Your task to perform on an android device: turn off improve location accuracy Image 0: 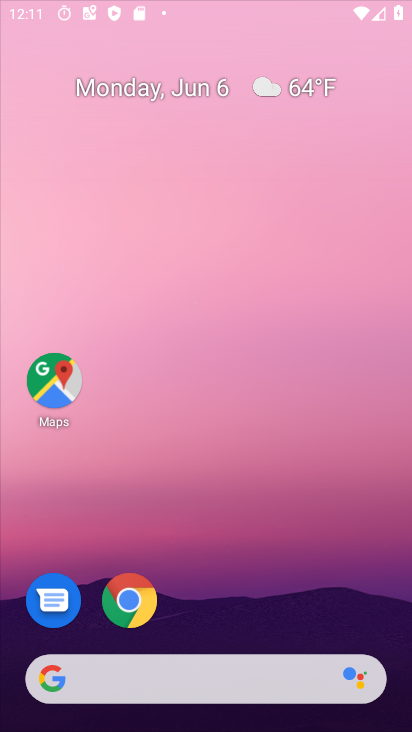
Step 0: click (30, 62)
Your task to perform on an android device: turn off improve location accuracy Image 1: 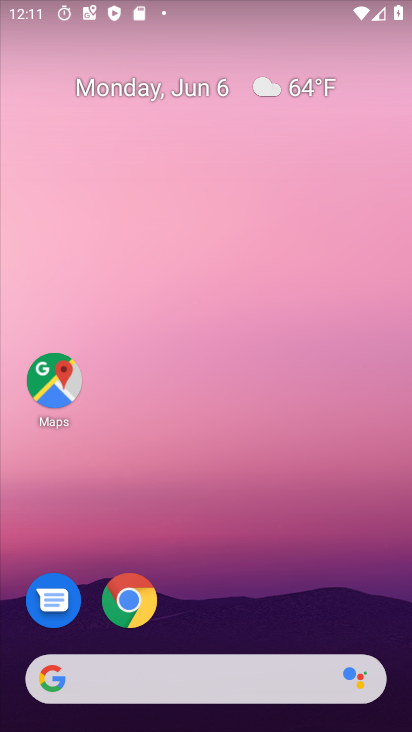
Step 1: drag from (294, 708) to (206, 114)
Your task to perform on an android device: turn off improve location accuracy Image 2: 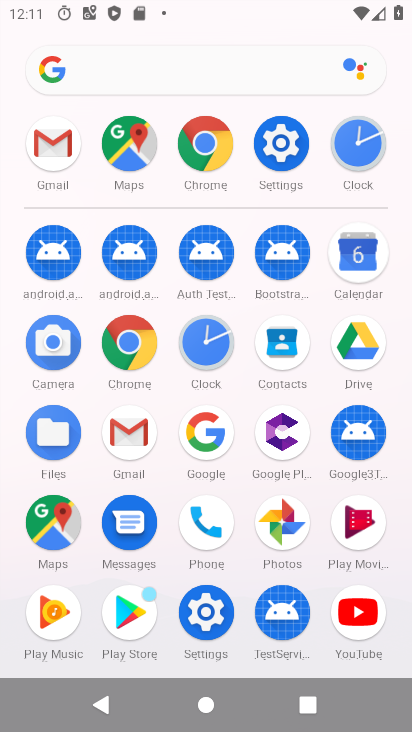
Step 2: drag from (252, 650) to (143, 216)
Your task to perform on an android device: turn off improve location accuracy Image 3: 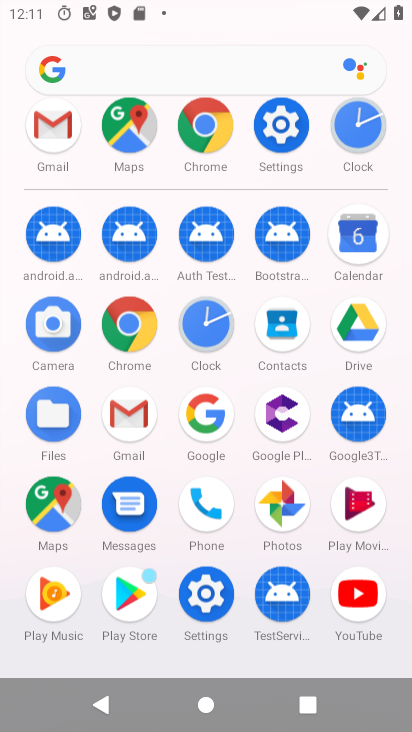
Step 3: click (278, 142)
Your task to perform on an android device: turn off improve location accuracy Image 4: 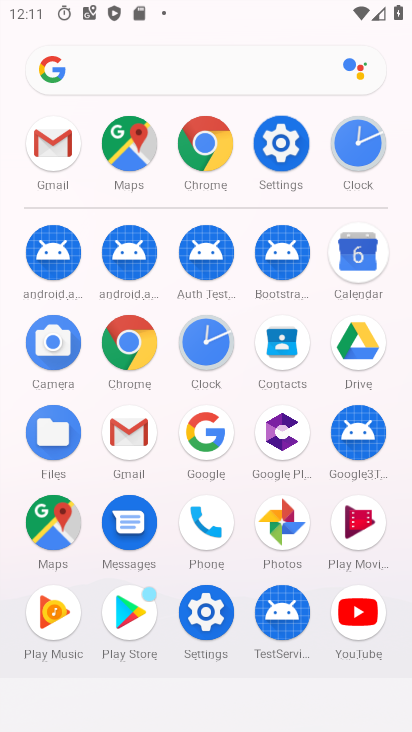
Step 4: click (278, 141)
Your task to perform on an android device: turn off improve location accuracy Image 5: 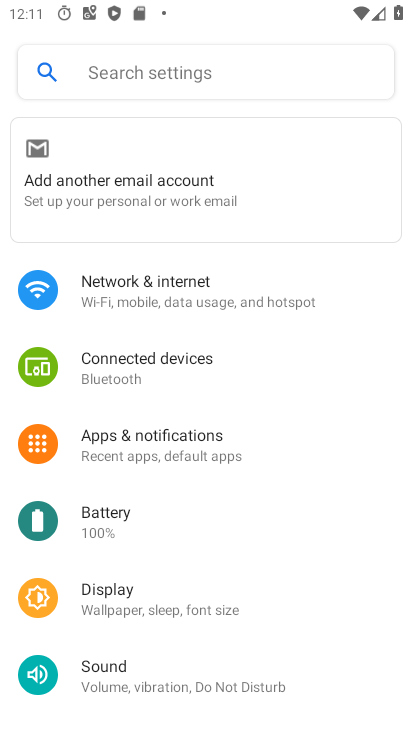
Step 5: drag from (141, 543) to (105, 203)
Your task to perform on an android device: turn off improve location accuracy Image 6: 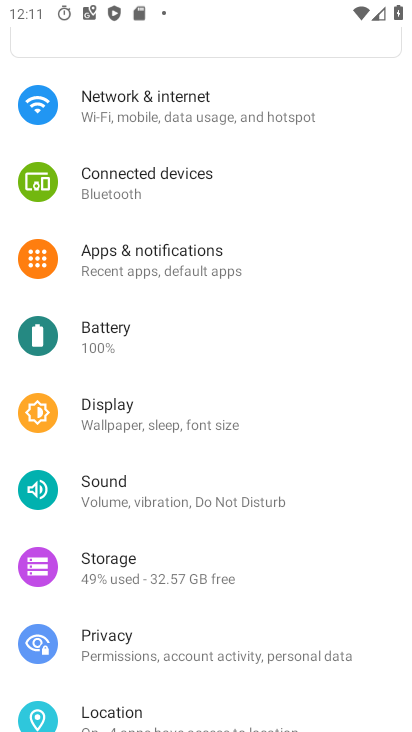
Step 6: drag from (217, 511) to (201, 255)
Your task to perform on an android device: turn off improve location accuracy Image 7: 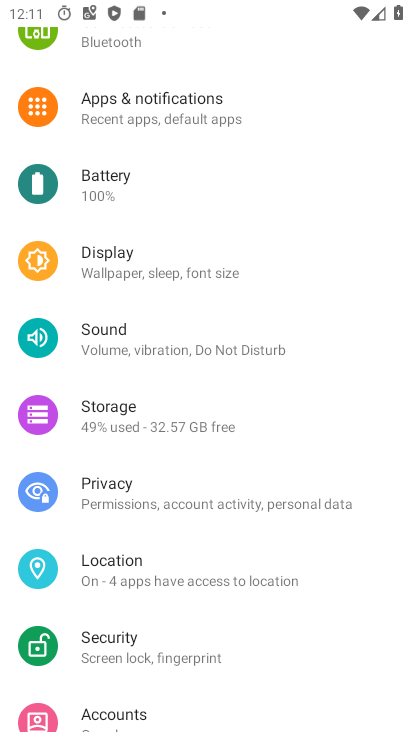
Step 7: click (140, 574)
Your task to perform on an android device: turn off improve location accuracy Image 8: 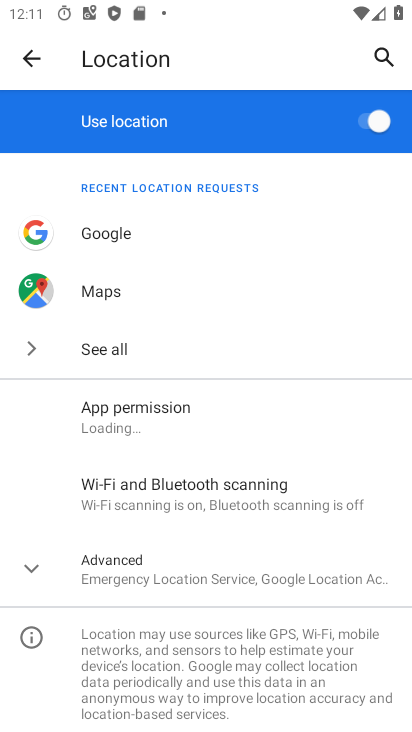
Step 8: click (234, 586)
Your task to perform on an android device: turn off improve location accuracy Image 9: 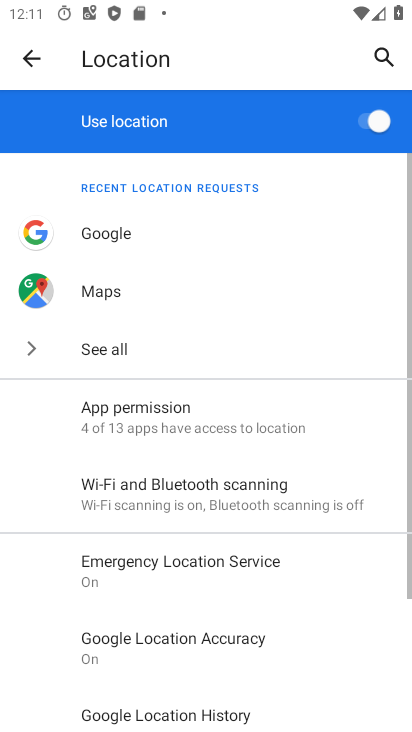
Step 9: drag from (228, 619) to (207, 383)
Your task to perform on an android device: turn off improve location accuracy Image 10: 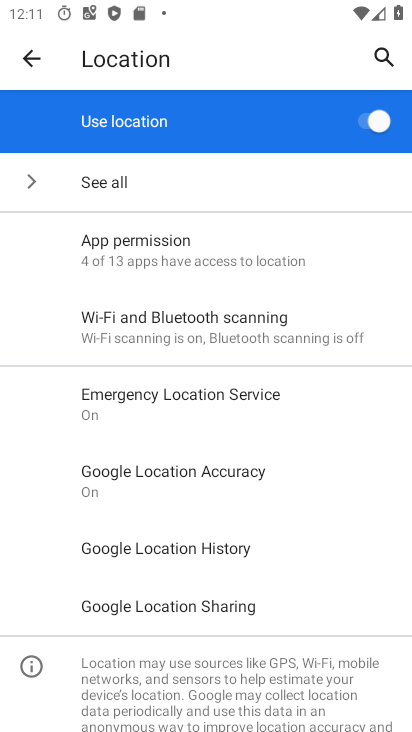
Step 10: click (167, 469)
Your task to perform on an android device: turn off improve location accuracy Image 11: 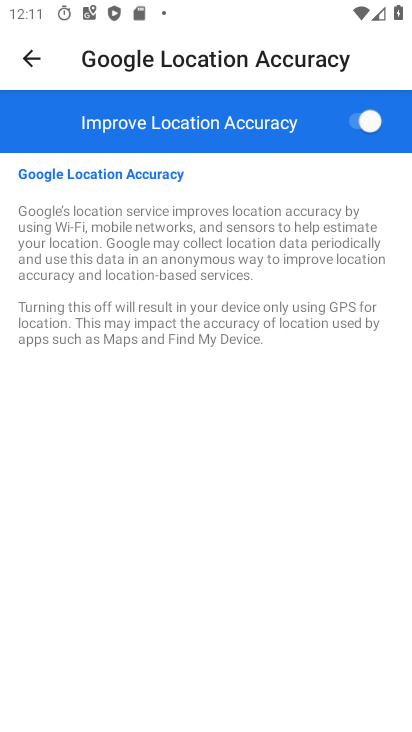
Step 11: click (366, 117)
Your task to perform on an android device: turn off improve location accuracy Image 12: 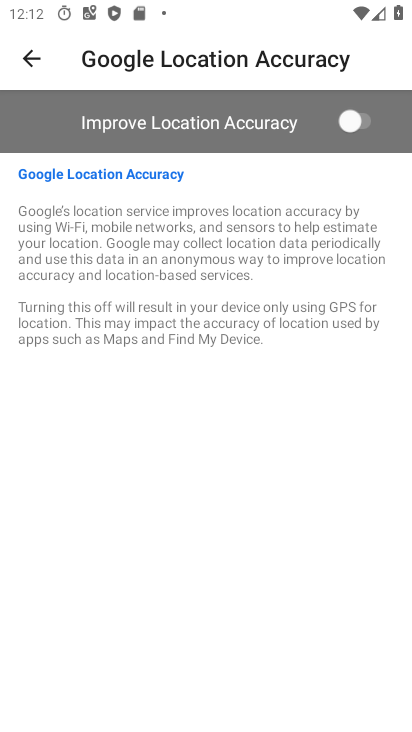
Step 12: task complete